Your task to perform on an android device: Open display settings Image 0: 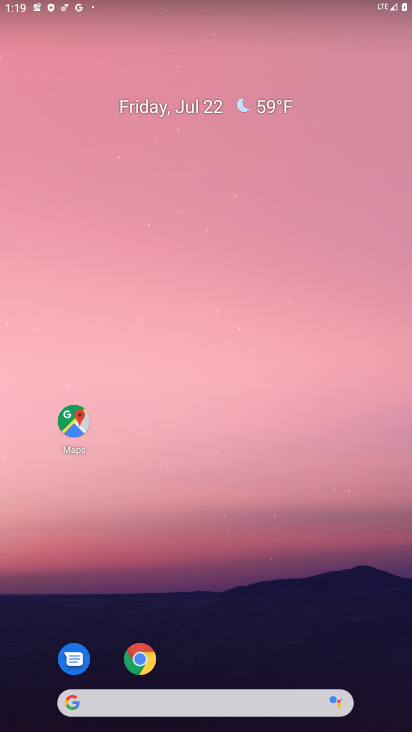
Step 0: drag from (295, 637) to (288, 53)
Your task to perform on an android device: Open display settings Image 1: 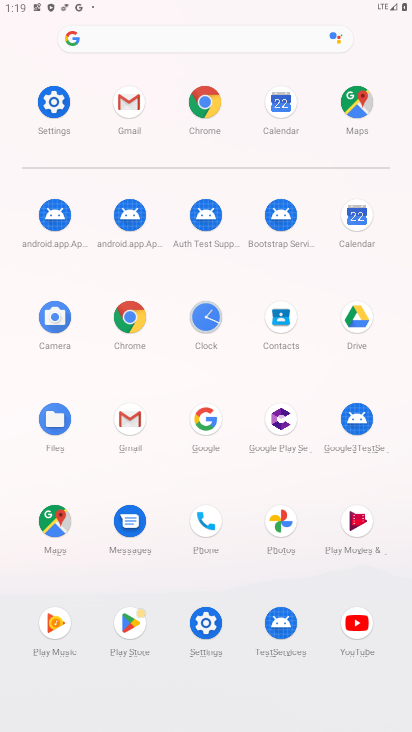
Step 1: click (49, 102)
Your task to perform on an android device: Open display settings Image 2: 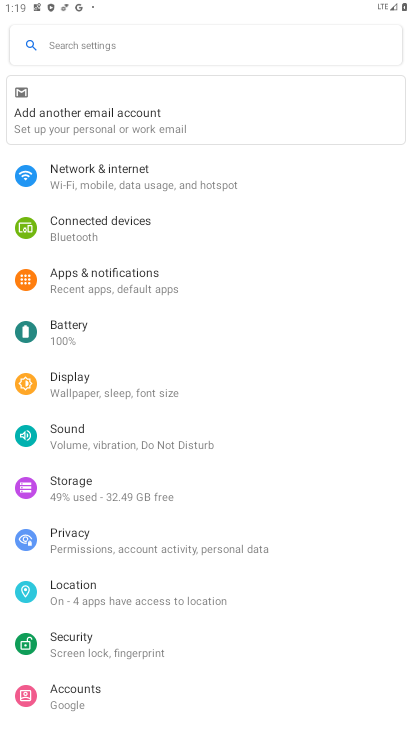
Step 2: click (104, 388)
Your task to perform on an android device: Open display settings Image 3: 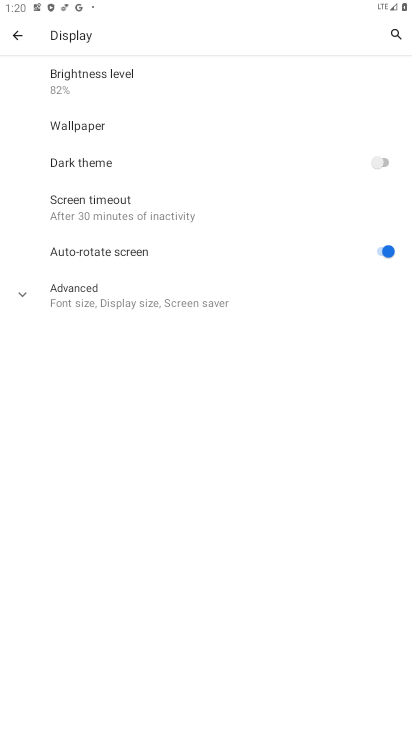
Step 3: task complete